Your task to perform on an android device: open chrome and create a bookmark for the current page Image 0: 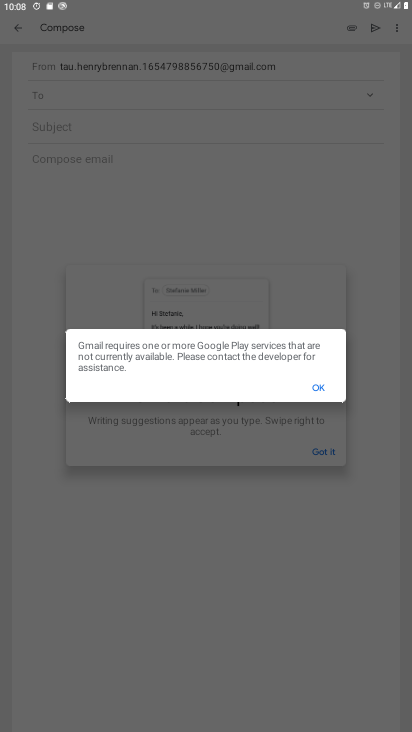
Step 0: press home button
Your task to perform on an android device: open chrome and create a bookmark for the current page Image 1: 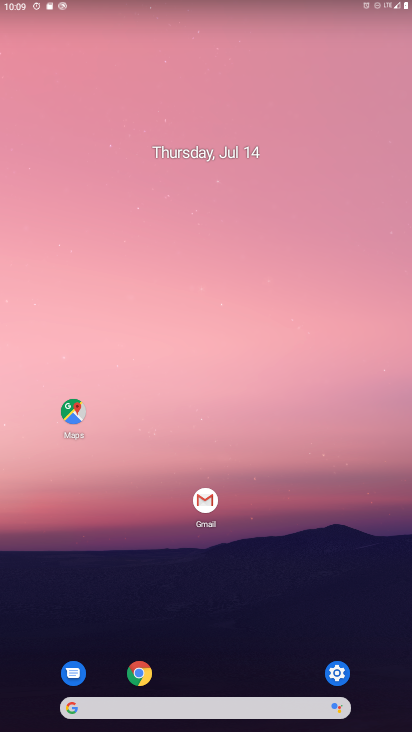
Step 1: click (141, 666)
Your task to perform on an android device: open chrome and create a bookmark for the current page Image 2: 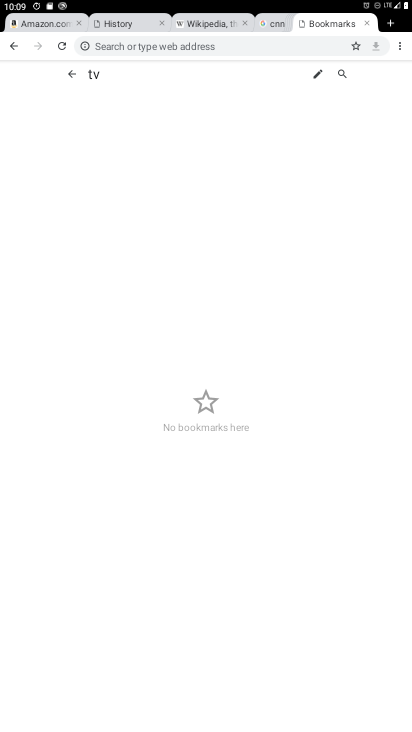
Step 2: click (403, 45)
Your task to perform on an android device: open chrome and create a bookmark for the current page Image 3: 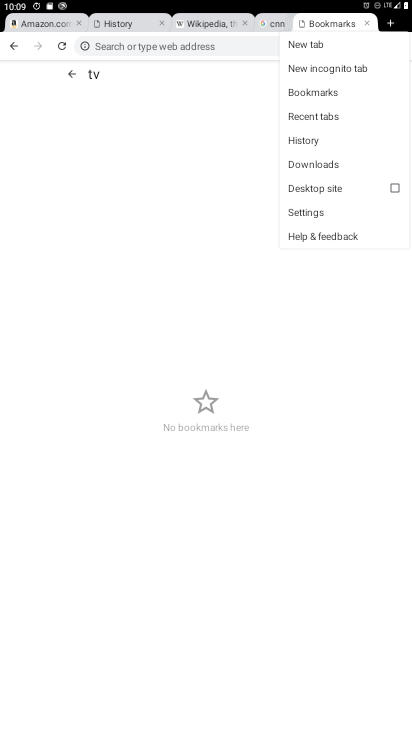
Step 3: click (323, 95)
Your task to perform on an android device: open chrome and create a bookmark for the current page Image 4: 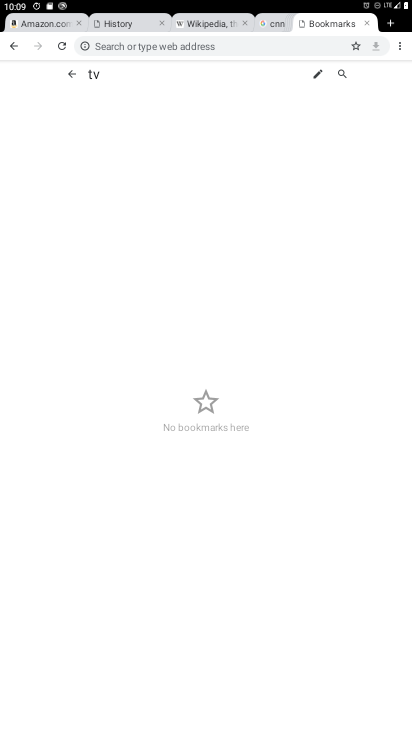
Step 4: task complete